Your task to perform on an android device: What's on my calendar today? Image 0: 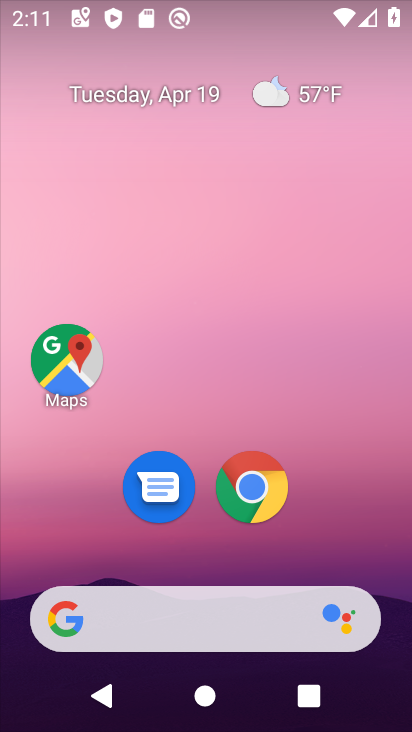
Step 0: click (167, 94)
Your task to perform on an android device: What's on my calendar today? Image 1: 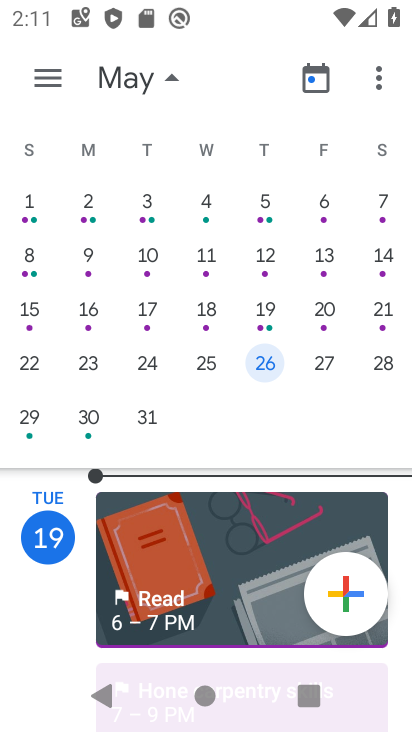
Step 1: click (215, 523)
Your task to perform on an android device: What's on my calendar today? Image 2: 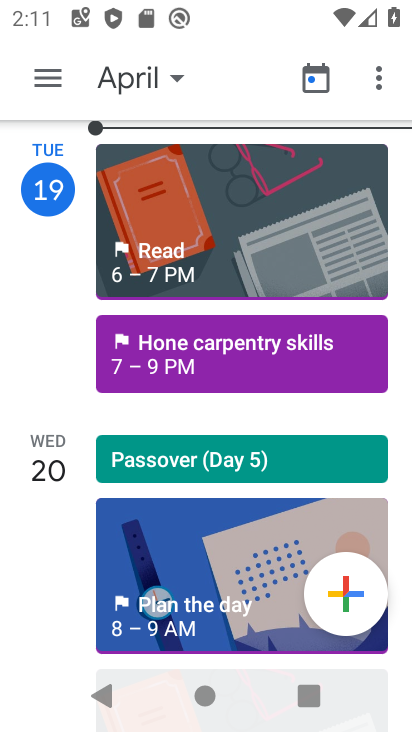
Step 2: task complete